Your task to perform on an android device: add a contact Image 0: 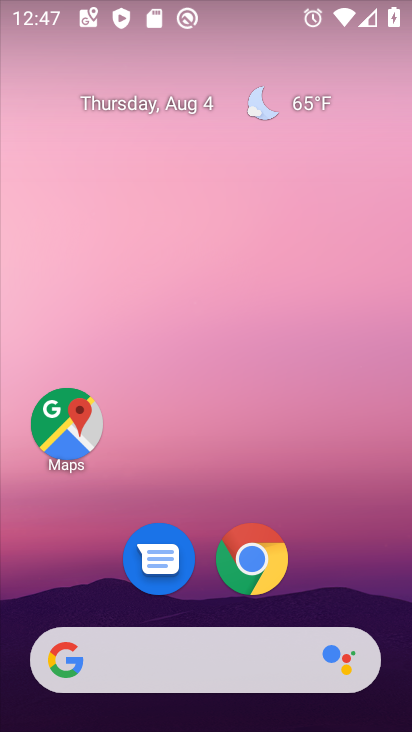
Step 0: drag from (203, 665) to (188, 152)
Your task to perform on an android device: add a contact Image 1: 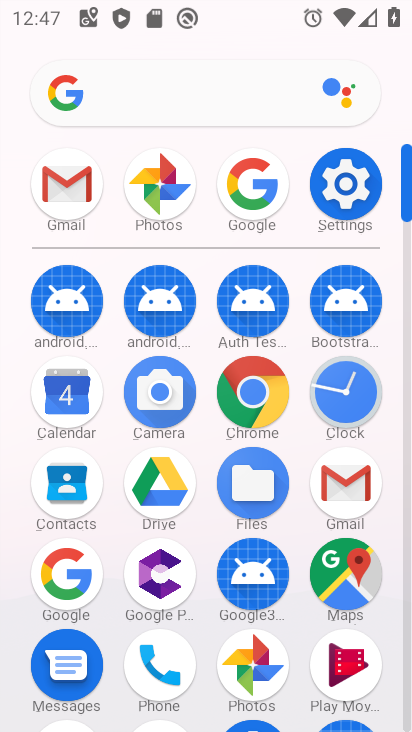
Step 1: drag from (204, 599) to (193, 408)
Your task to perform on an android device: add a contact Image 2: 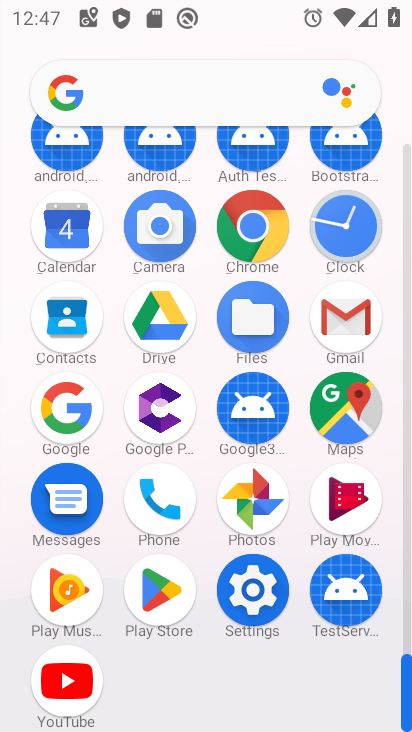
Step 2: drag from (206, 379) to (201, 503)
Your task to perform on an android device: add a contact Image 3: 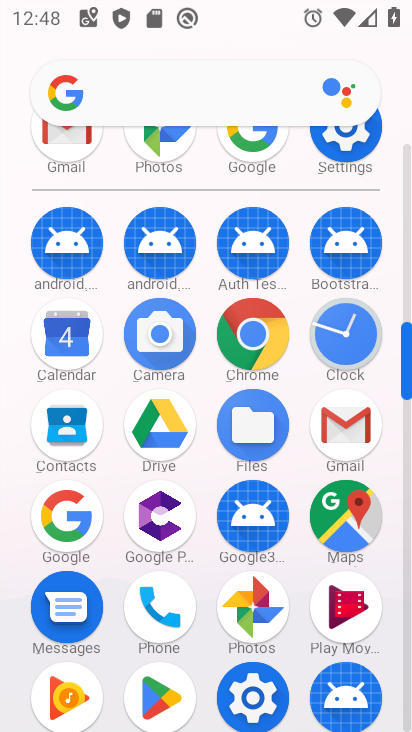
Step 3: click (69, 423)
Your task to perform on an android device: add a contact Image 4: 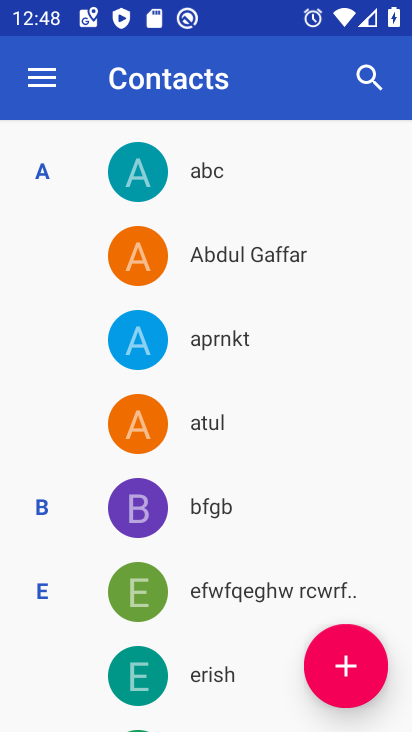
Step 4: click (346, 665)
Your task to perform on an android device: add a contact Image 5: 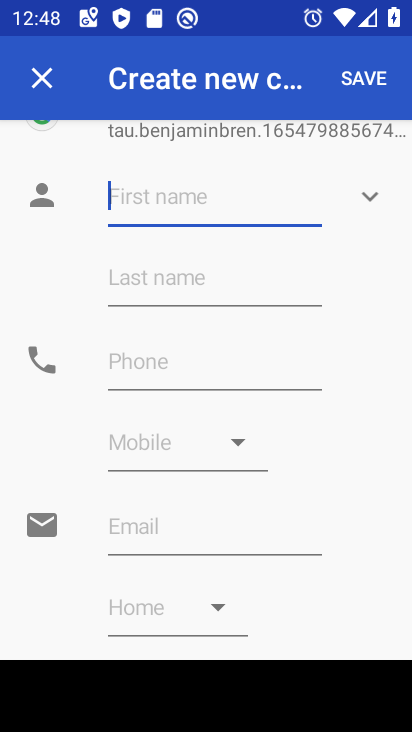
Step 5: click (202, 191)
Your task to perform on an android device: add a contact Image 6: 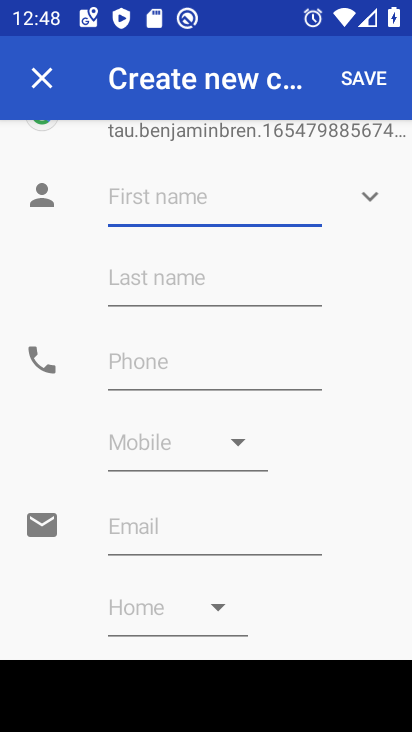
Step 6: type "Chandraparrap"
Your task to perform on an android device: add a contact Image 7: 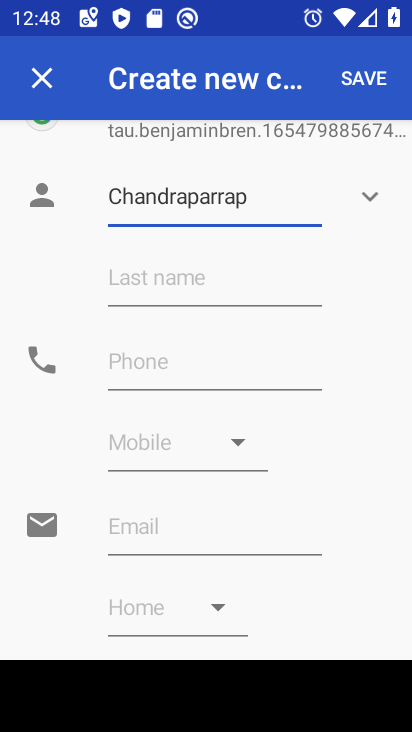
Step 7: click (220, 275)
Your task to perform on an android device: add a contact Image 8: 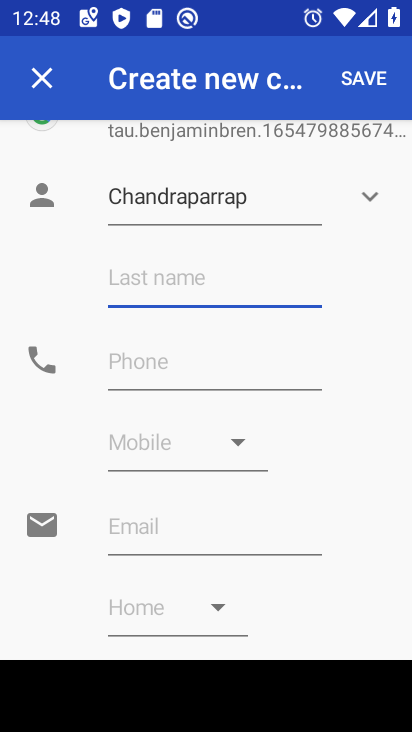
Step 8: type "Tiwary"
Your task to perform on an android device: add a contact Image 9: 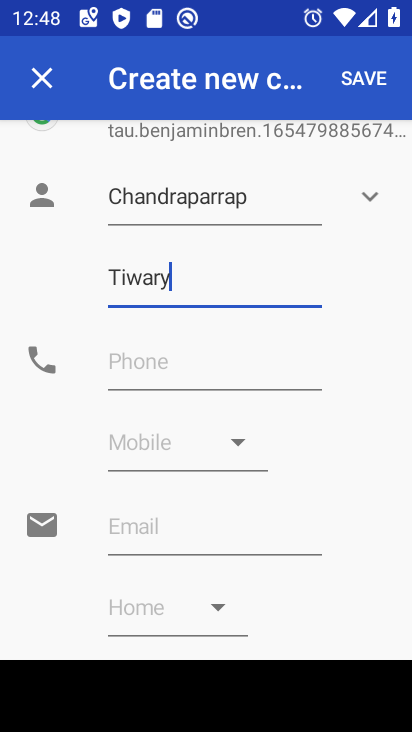
Step 9: click (184, 360)
Your task to perform on an android device: add a contact Image 10: 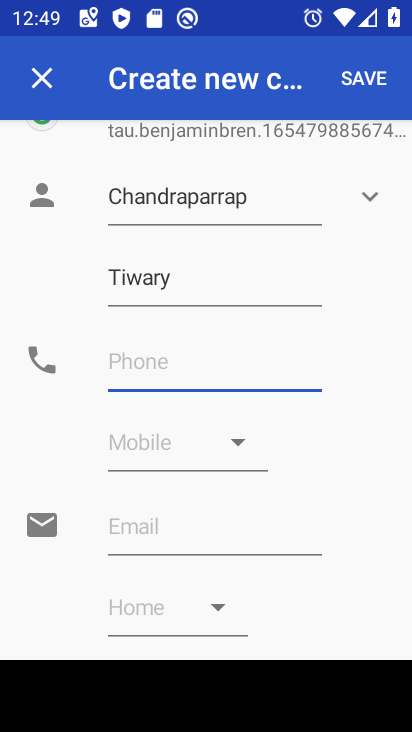
Step 10: type "099663311753"
Your task to perform on an android device: add a contact Image 11: 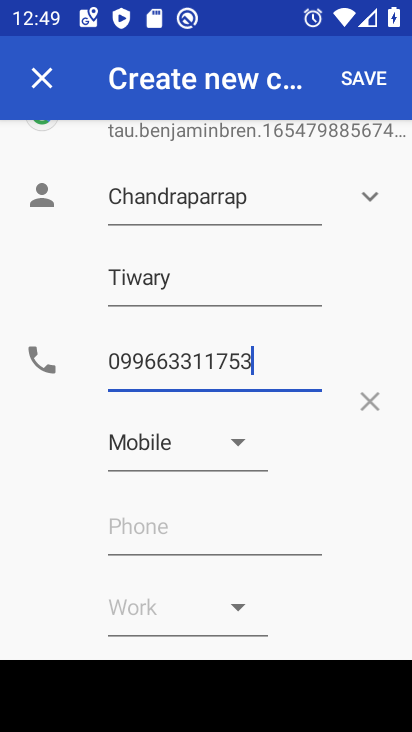
Step 11: click (373, 81)
Your task to perform on an android device: add a contact Image 12: 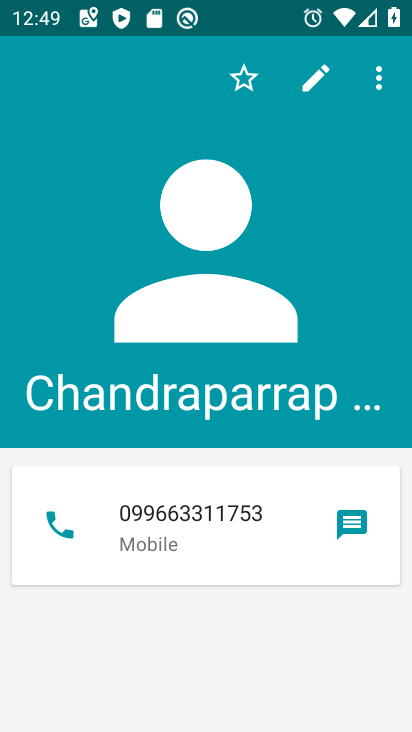
Step 12: task complete